Your task to perform on an android device: turn off location Image 0: 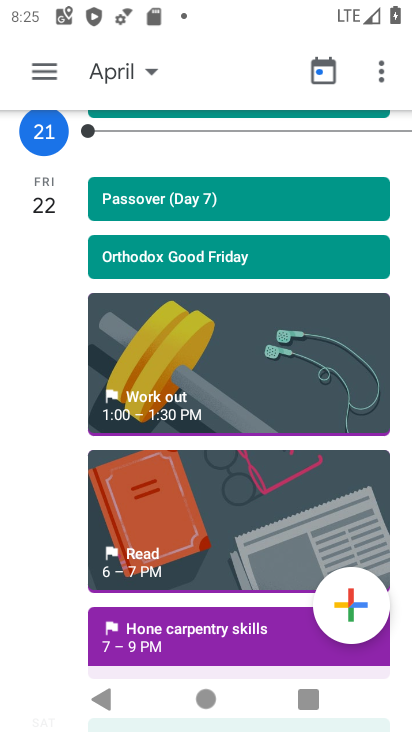
Step 0: press home button
Your task to perform on an android device: turn off location Image 1: 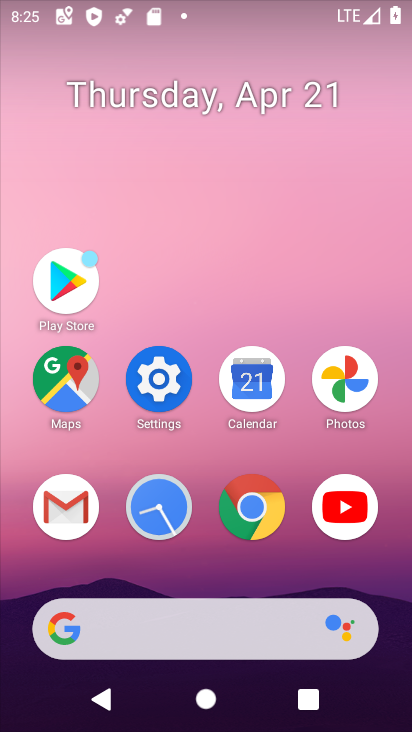
Step 1: click (158, 376)
Your task to perform on an android device: turn off location Image 2: 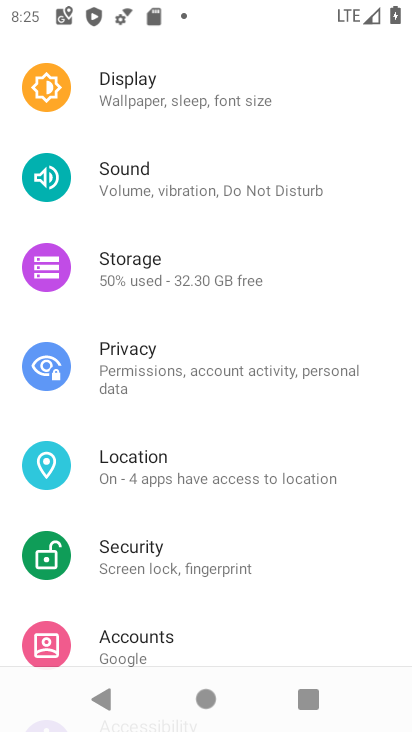
Step 2: click (132, 455)
Your task to perform on an android device: turn off location Image 3: 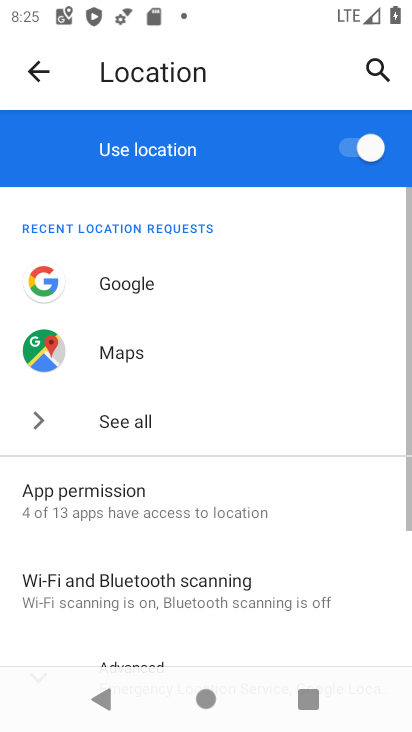
Step 3: click (371, 141)
Your task to perform on an android device: turn off location Image 4: 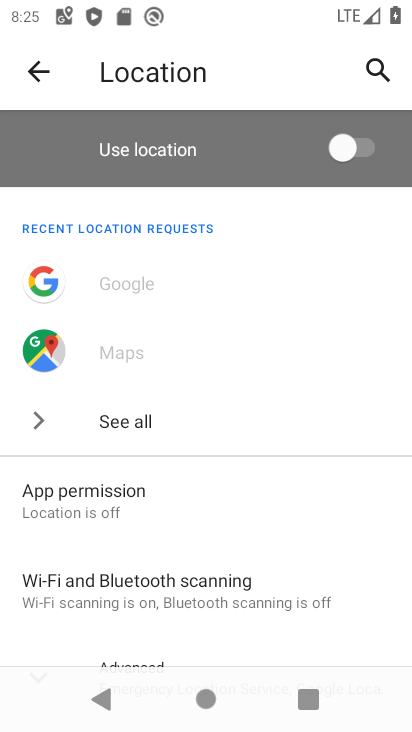
Step 4: task complete